Your task to perform on an android device: Set the phone to "Do not disturb". Image 0: 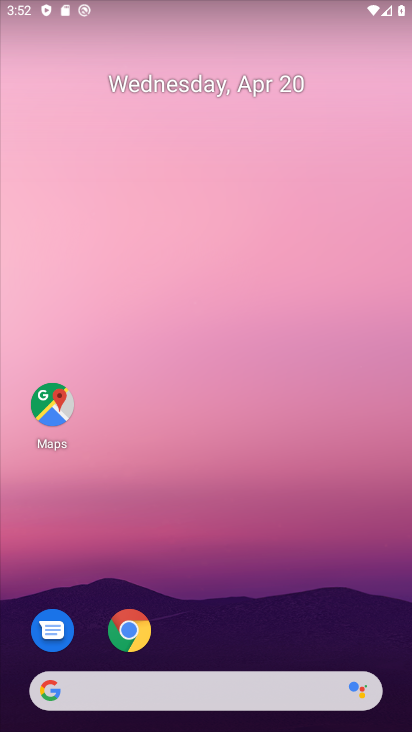
Step 0: drag from (156, 559) to (279, 25)
Your task to perform on an android device: Set the phone to "Do not disturb". Image 1: 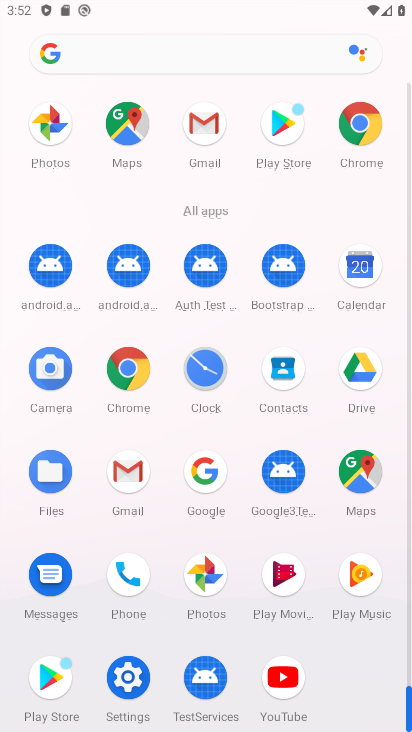
Step 1: click (125, 683)
Your task to perform on an android device: Set the phone to "Do not disturb". Image 2: 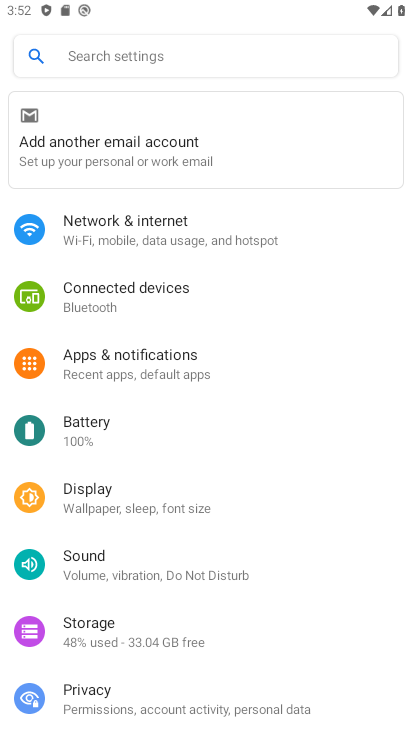
Step 2: drag from (211, 668) to (210, 384)
Your task to perform on an android device: Set the phone to "Do not disturb". Image 3: 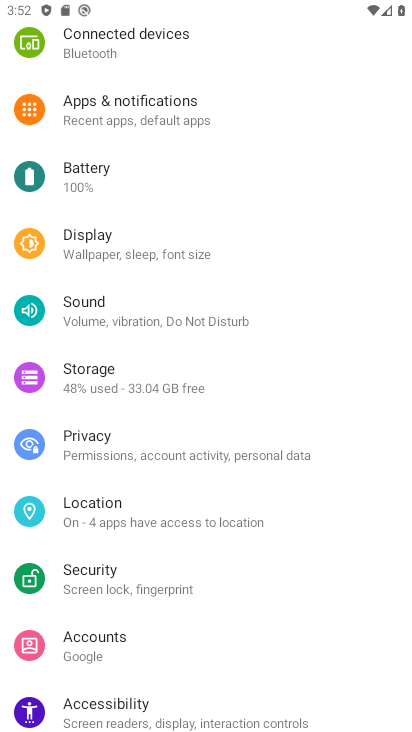
Step 3: click (180, 322)
Your task to perform on an android device: Set the phone to "Do not disturb". Image 4: 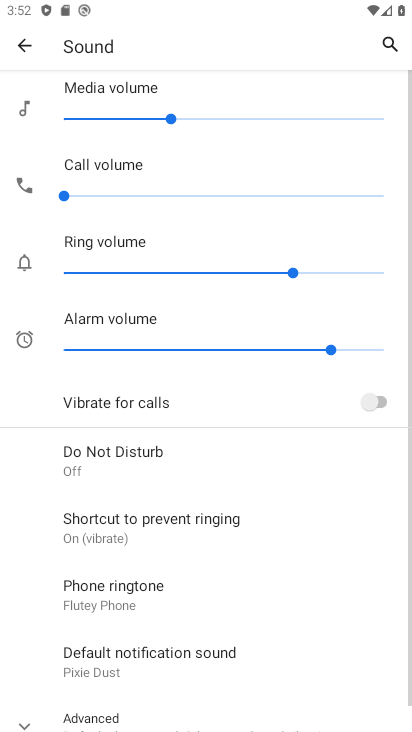
Step 4: click (139, 468)
Your task to perform on an android device: Set the phone to "Do not disturb". Image 5: 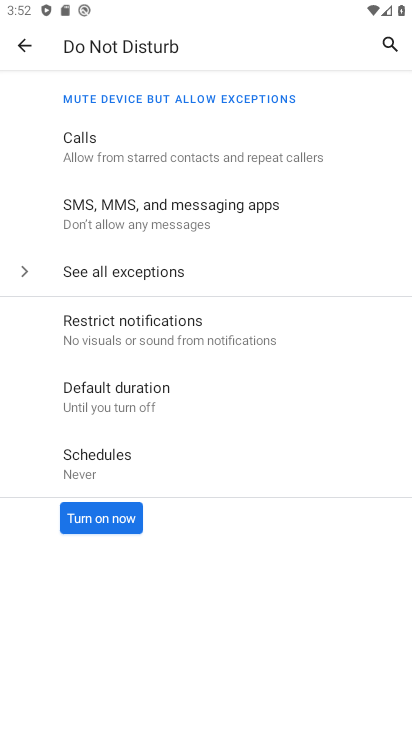
Step 5: click (108, 519)
Your task to perform on an android device: Set the phone to "Do not disturb". Image 6: 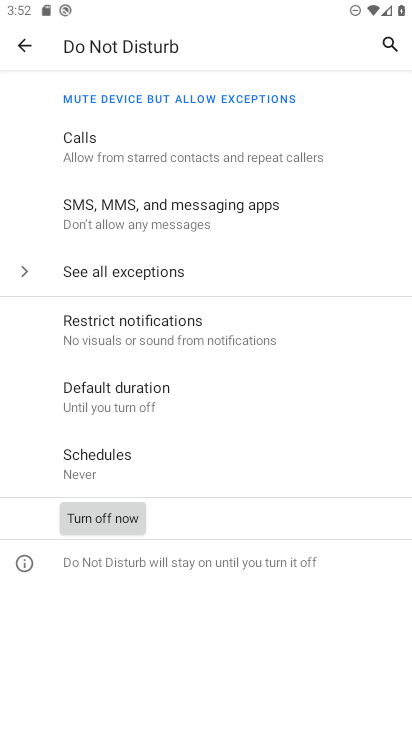
Step 6: task complete